Your task to perform on an android device: Go to display settings Image 0: 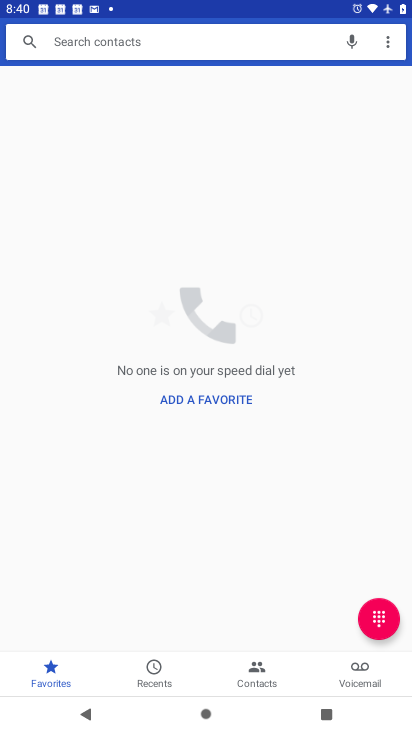
Step 0: press home button
Your task to perform on an android device: Go to display settings Image 1: 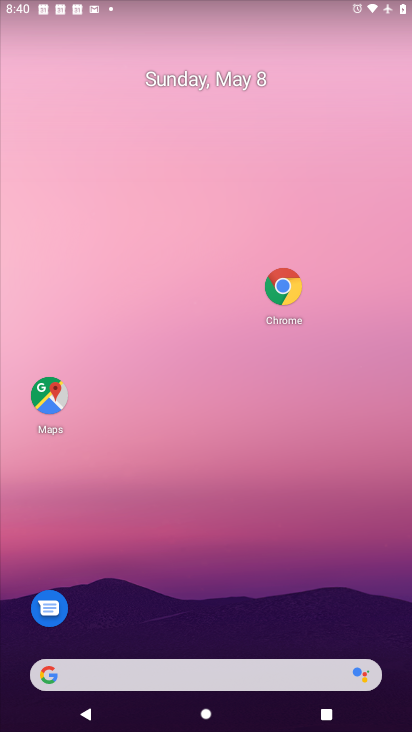
Step 1: drag from (197, 672) to (287, 83)
Your task to perform on an android device: Go to display settings Image 2: 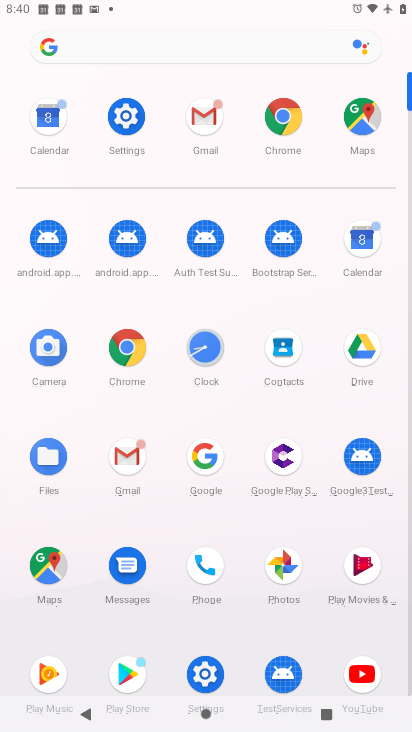
Step 2: click (130, 121)
Your task to perform on an android device: Go to display settings Image 3: 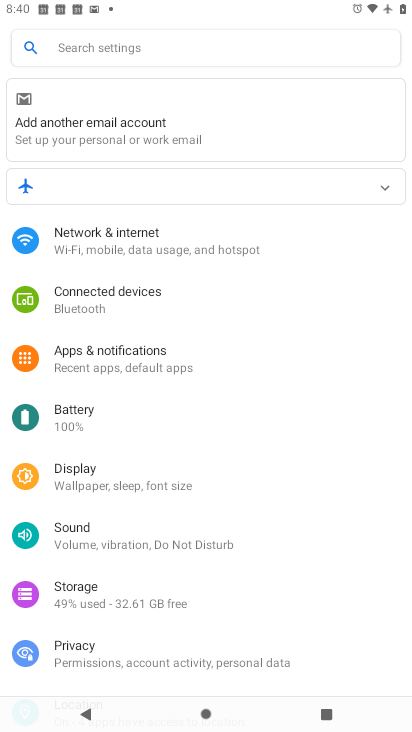
Step 3: click (72, 469)
Your task to perform on an android device: Go to display settings Image 4: 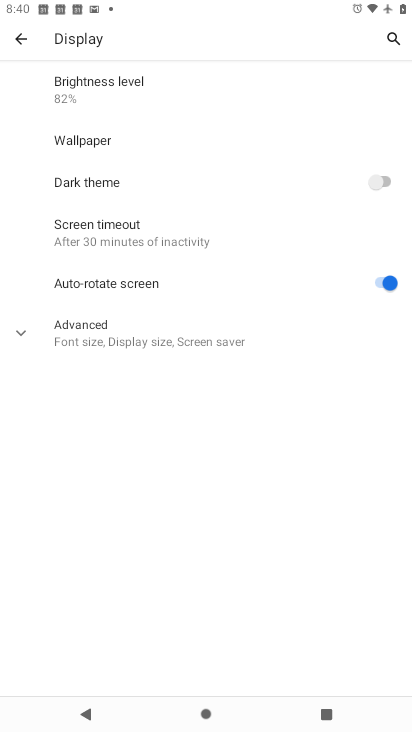
Step 4: task complete